Your task to perform on an android device: open the mobile data screen to see how much data has been used Image 0: 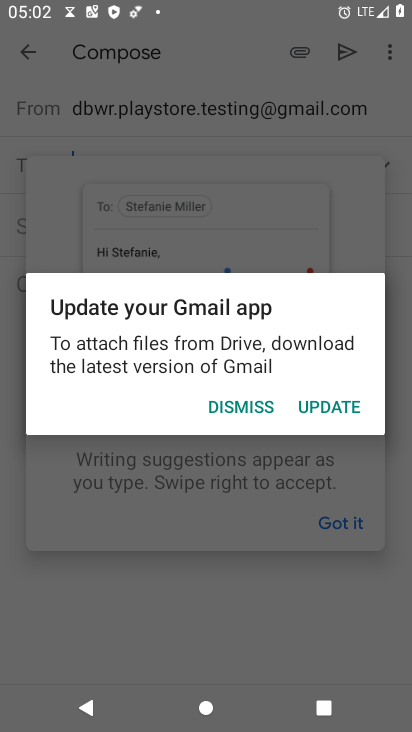
Step 0: press home button
Your task to perform on an android device: open the mobile data screen to see how much data has been used Image 1: 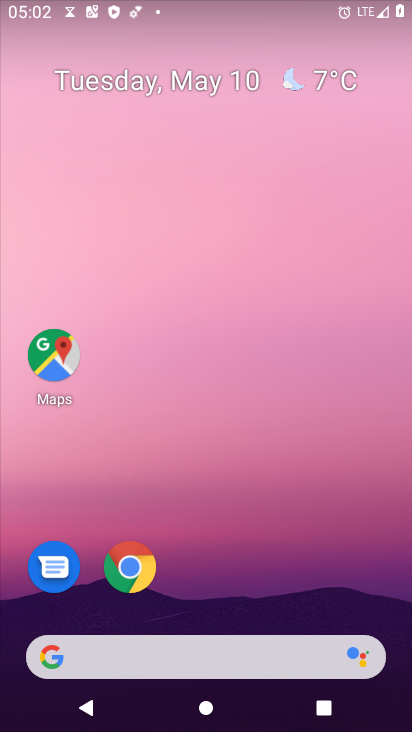
Step 1: drag from (255, 600) to (225, 24)
Your task to perform on an android device: open the mobile data screen to see how much data has been used Image 2: 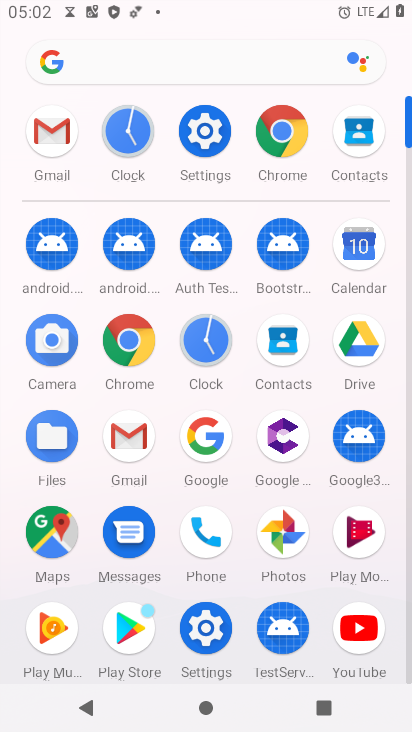
Step 2: click (204, 130)
Your task to perform on an android device: open the mobile data screen to see how much data has been used Image 3: 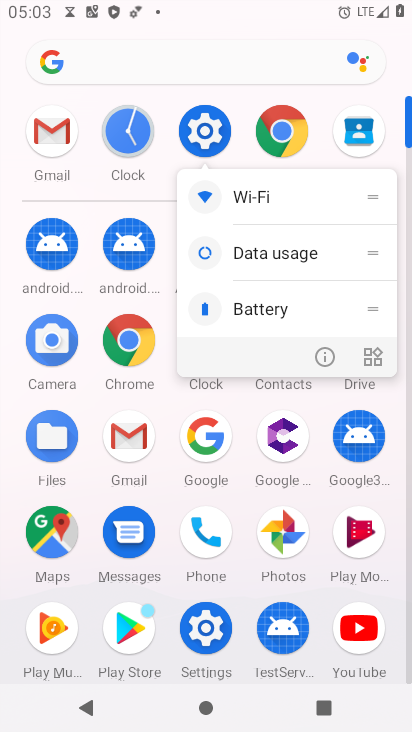
Step 3: click (204, 131)
Your task to perform on an android device: open the mobile data screen to see how much data has been used Image 4: 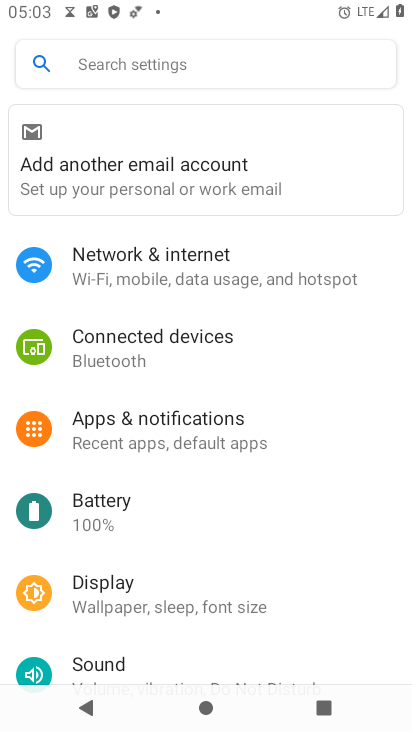
Step 4: click (179, 260)
Your task to perform on an android device: open the mobile data screen to see how much data has been used Image 5: 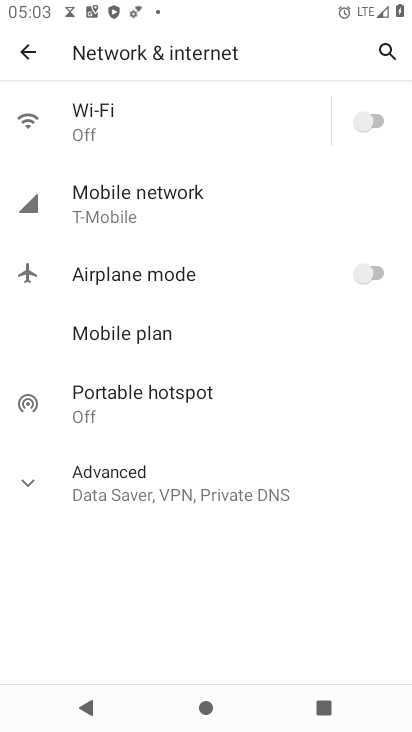
Step 5: click (154, 192)
Your task to perform on an android device: open the mobile data screen to see how much data has been used Image 6: 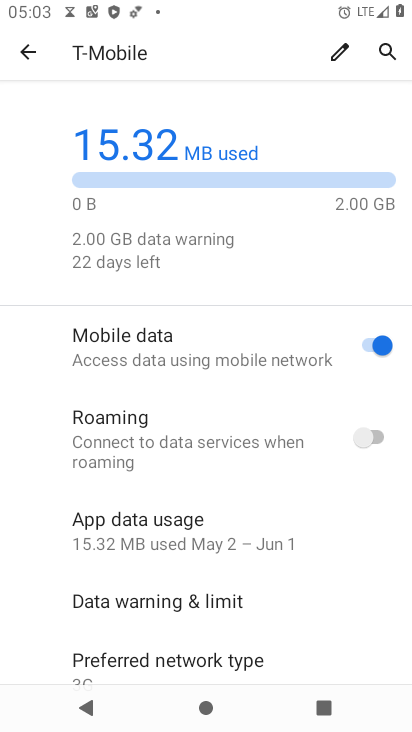
Step 6: task complete